Your task to perform on an android device: What is the news today? Image 0: 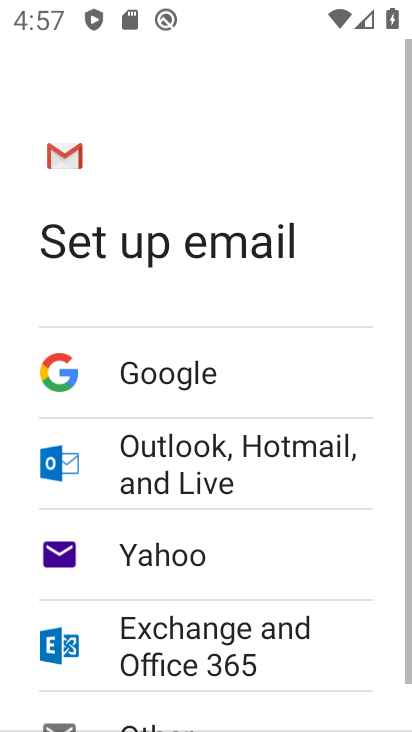
Step 0: press home button
Your task to perform on an android device: What is the news today? Image 1: 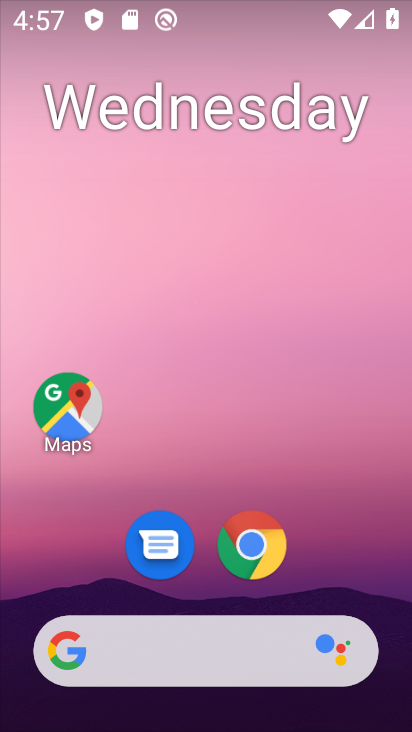
Step 1: click (267, 555)
Your task to perform on an android device: What is the news today? Image 2: 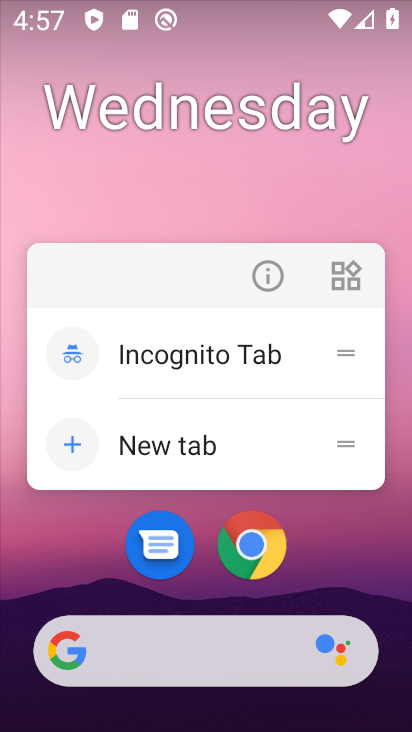
Step 2: click (253, 547)
Your task to perform on an android device: What is the news today? Image 3: 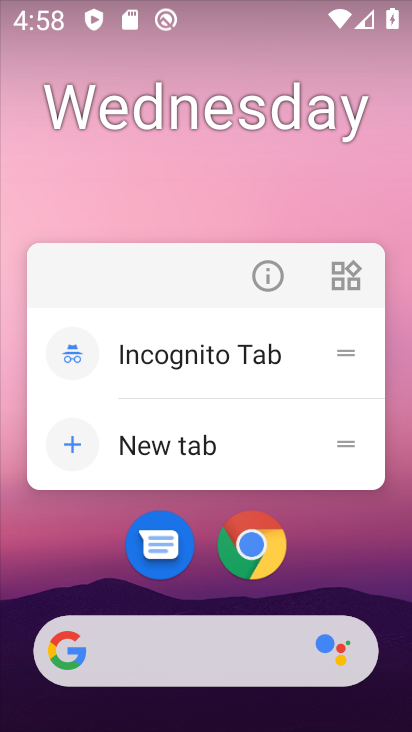
Step 3: click (244, 538)
Your task to perform on an android device: What is the news today? Image 4: 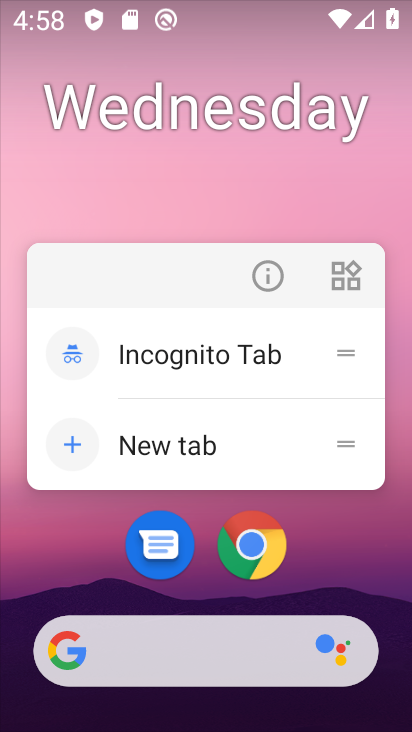
Step 4: click (246, 542)
Your task to perform on an android device: What is the news today? Image 5: 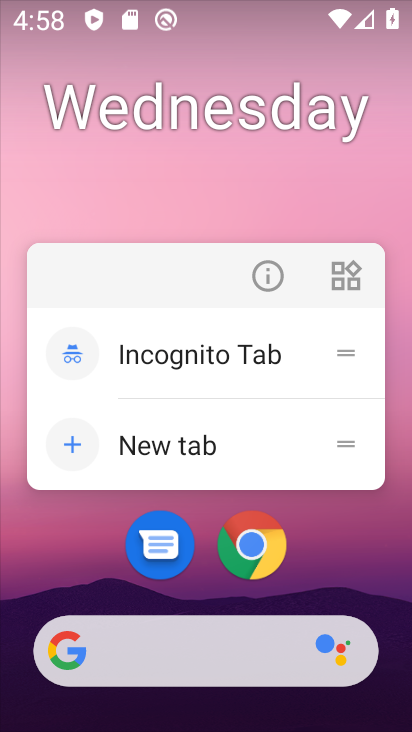
Step 5: click (258, 549)
Your task to perform on an android device: What is the news today? Image 6: 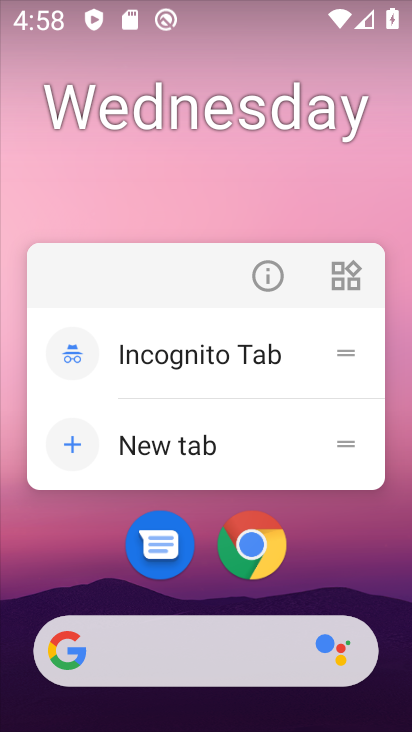
Step 6: click (385, 562)
Your task to perform on an android device: What is the news today? Image 7: 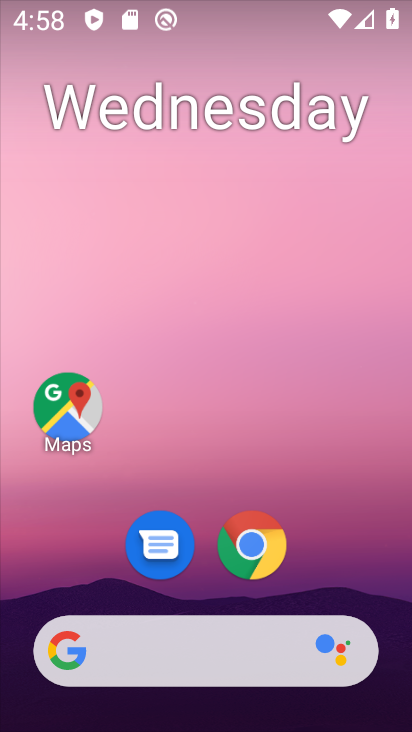
Step 7: click (270, 554)
Your task to perform on an android device: What is the news today? Image 8: 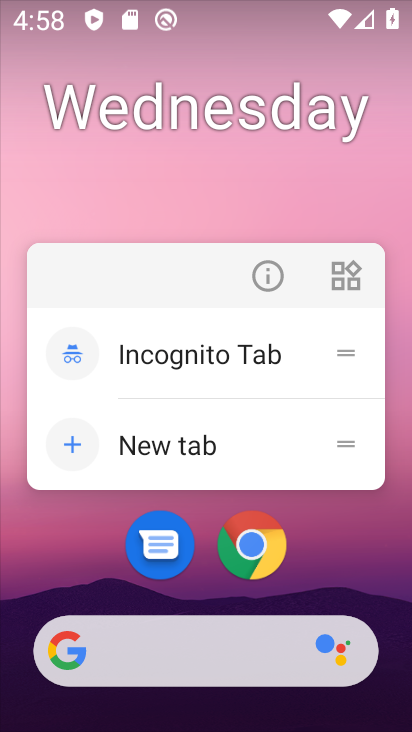
Step 8: click (226, 551)
Your task to perform on an android device: What is the news today? Image 9: 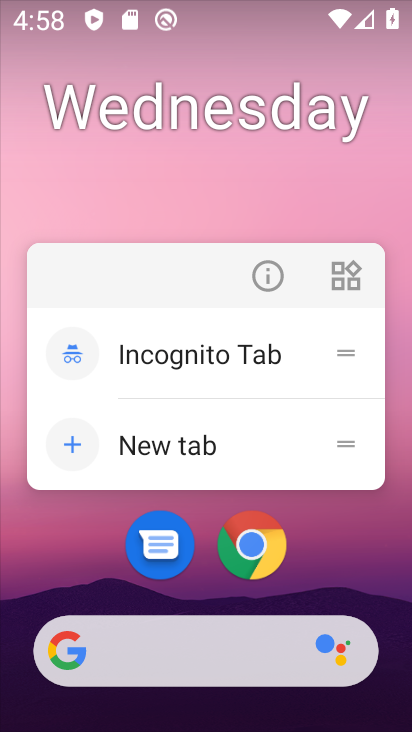
Step 9: drag from (338, 452) to (274, 25)
Your task to perform on an android device: What is the news today? Image 10: 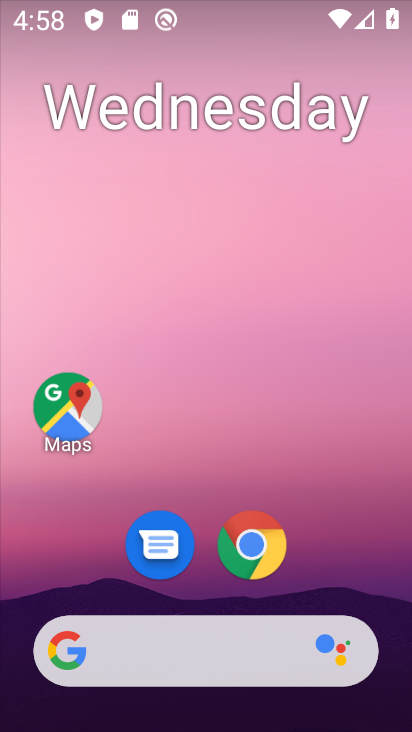
Step 10: drag from (318, 531) to (302, 93)
Your task to perform on an android device: What is the news today? Image 11: 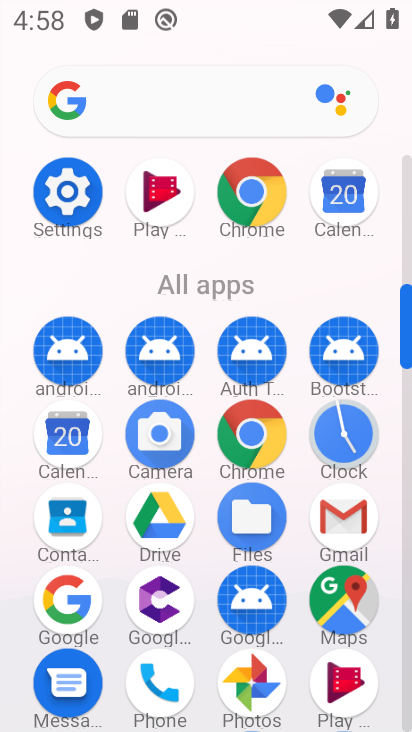
Step 11: click (240, 435)
Your task to perform on an android device: What is the news today? Image 12: 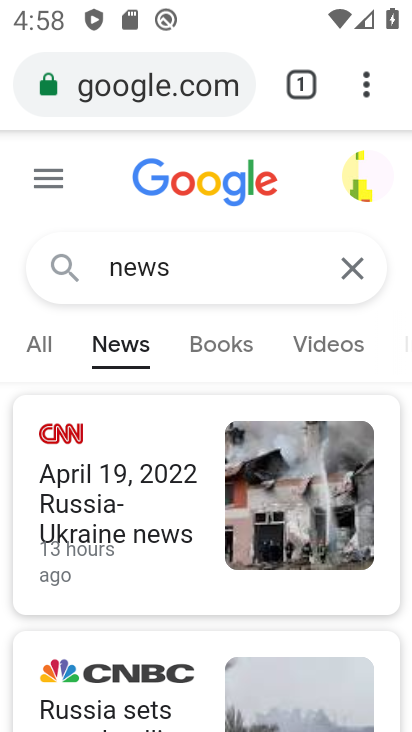
Step 12: task complete